Your task to perform on an android device: open chrome privacy settings Image 0: 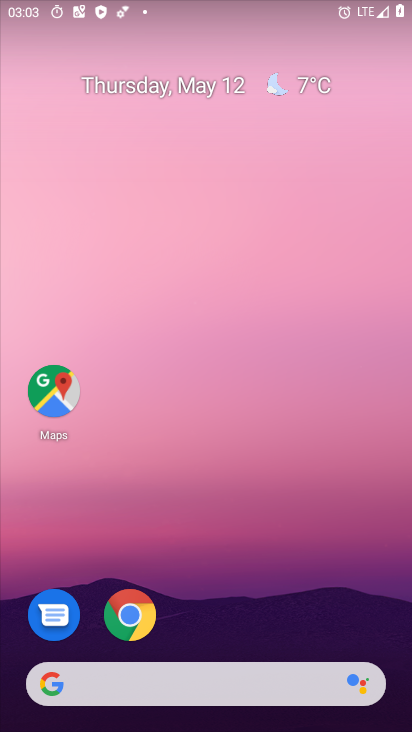
Step 0: click (112, 610)
Your task to perform on an android device: open chrome privacy settings Image 1: 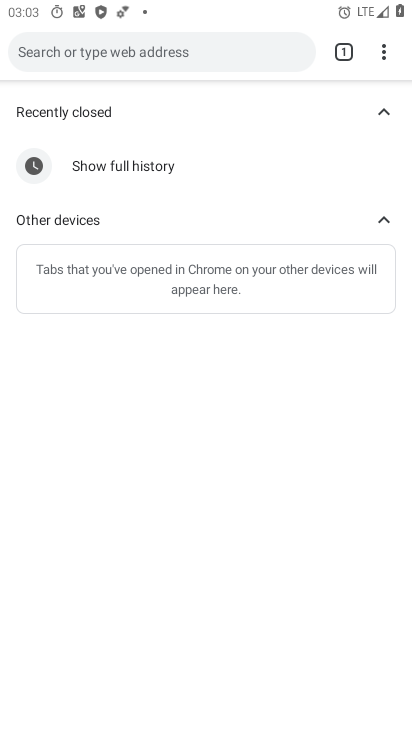
Step 1: drag from (380, 50) to (230, 444)
Your task to perform on an android device: open chrome privacy settings Image 2: 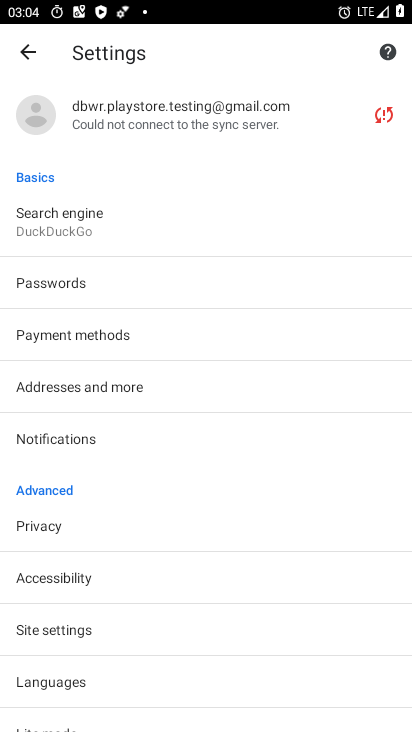
Step 2: click (66, 537)
Your task to perform on an android device: open chrome privacy settings Image 3: 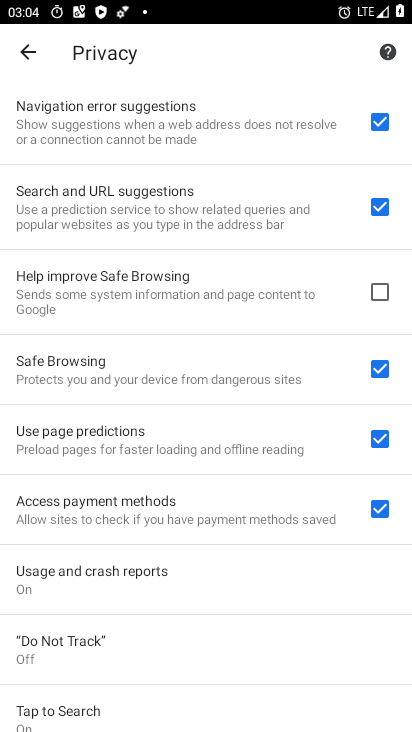
Step 3: task complete